Your task to perform on an android device: Open Wikipedia Image 0: 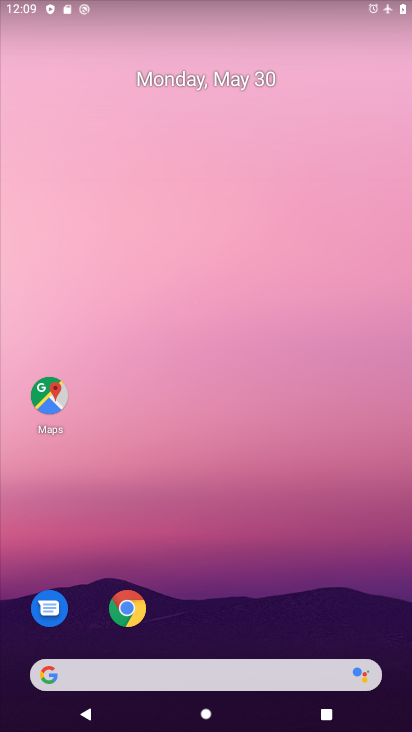
Step 0: click (126, 609)
Your task to perform on an android device: Open Wikipedia Image 1: 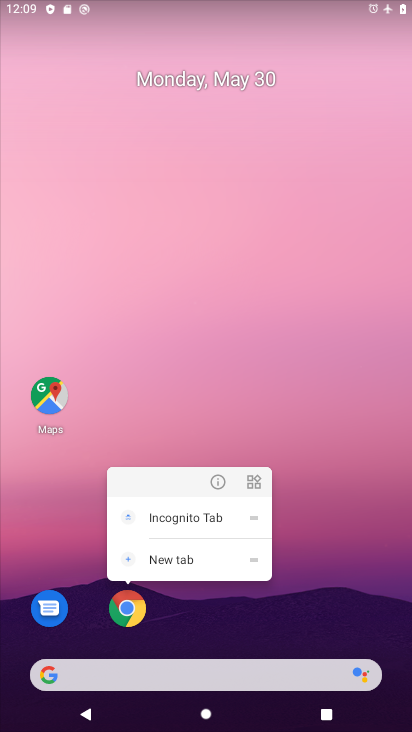
Step 1: click (133, 625)
Your task to perform on an android device: Open Wikipedia Image 2: 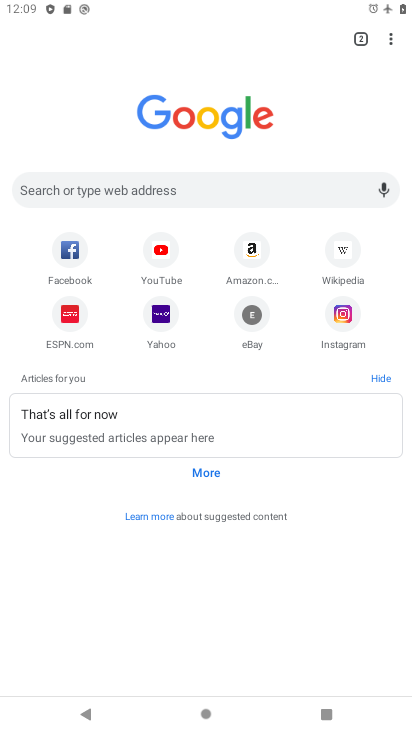
Step 2: click (346, 262)
Your task to perform on an android device: Open Wikipedia Image 3: 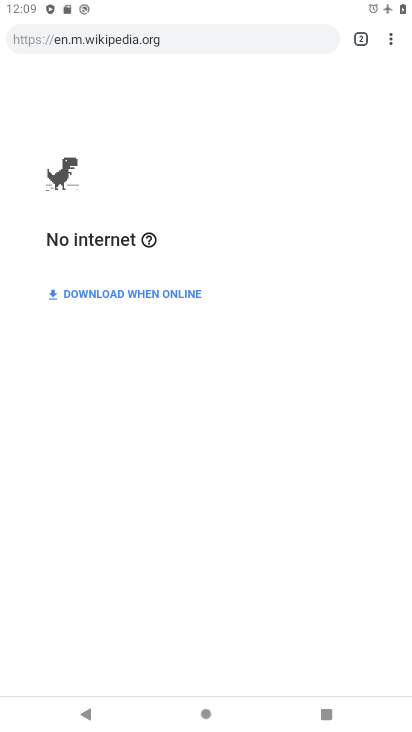
Step 3: task complete